Your task to perform on an android device: Show me productivity apps on the Play Store Image 0: 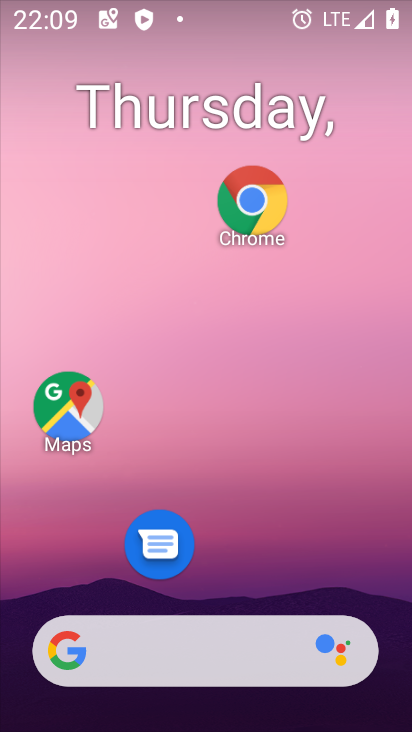
Step 0: drag from (230, 590) to (358, 33)
Your task to perform on an android device: Show me productivity apps on the Play Store Image 1: 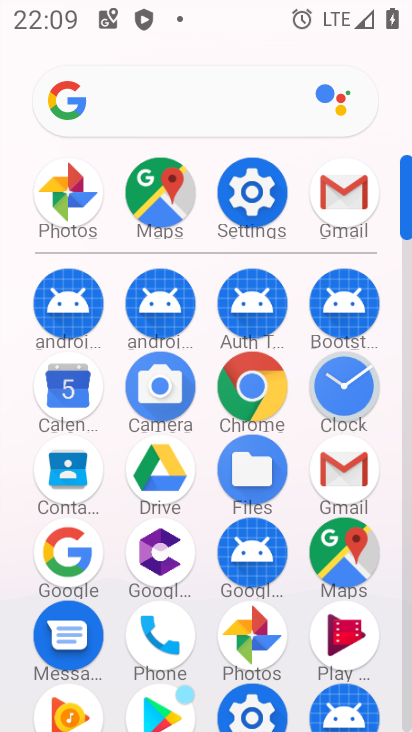
Step 1: click (156, 693)
Your task to perform on an android device: Show me productivity apps on the Play Store Image 2: 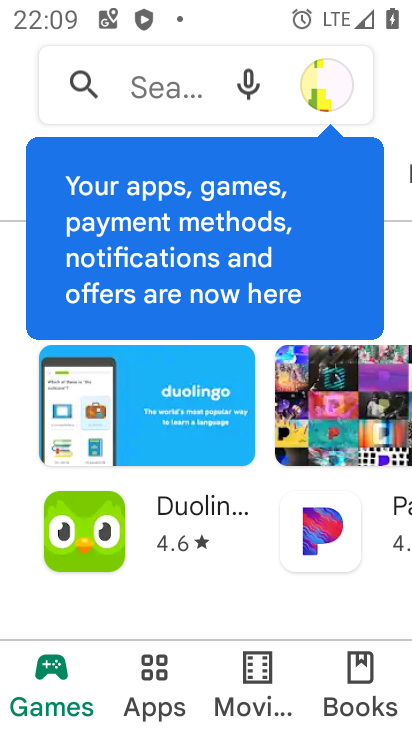
Step 2: click (181, 669)
Your task to perform on an android device: Show me productivity apps on the Play Store Image 3: 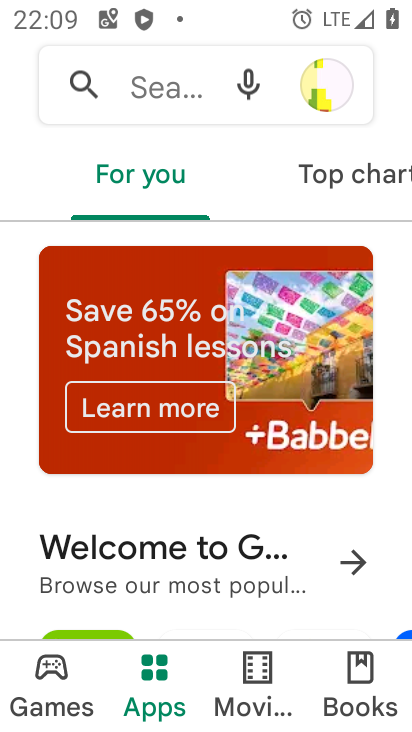
Step 3: click (372, 191)
Your task to perform on an android device: Show me productivity apps on the Play Store Image 4: 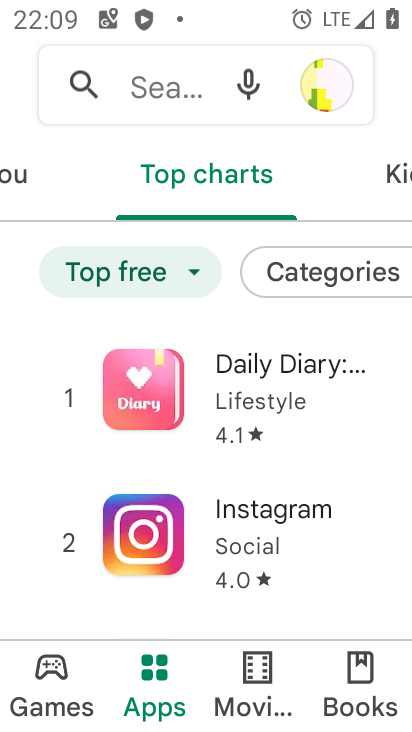
Step 4: click (324, 268)
Your task to perform on an android device: Show me productivity apps on the Play Store Image 5: 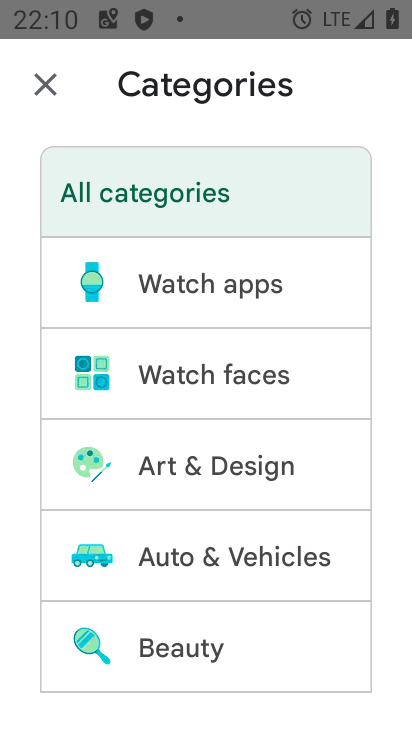
Step 5: drag from (180, 664) to (290, 290)
Your task to perform on an android device: Show me productivity apps on the Play Store Image 6: 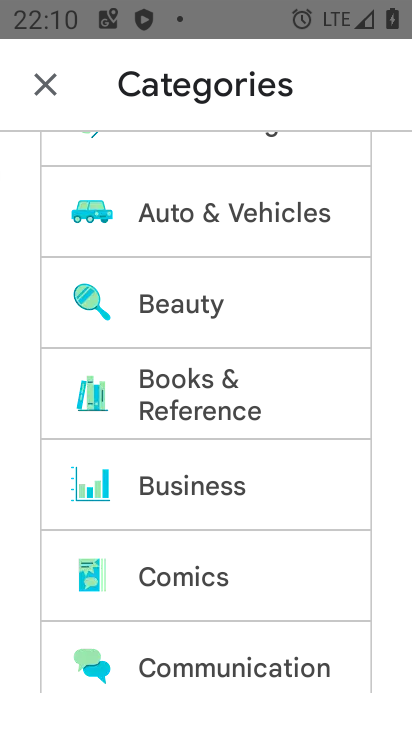
Step 6: drag from (158, 615) to (247, 243)
Your task to perform on an android device: Show me productivity apps on the Play Store Image 7: 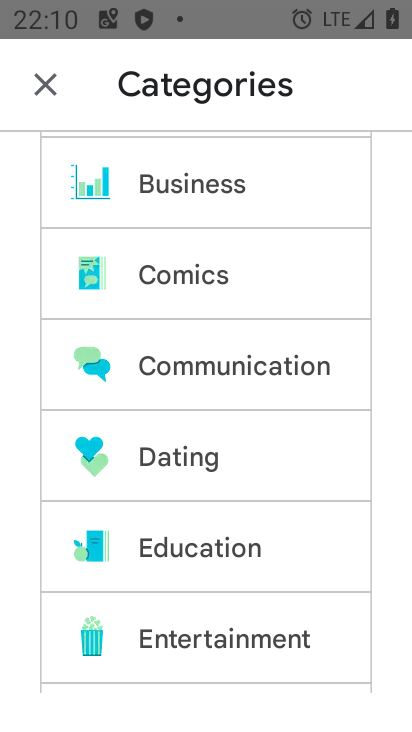
Step 7: drag from (87, 650) to (200, 147)
Your task to perform on an android device: Show me productivity apps on the Play Store Image 8: 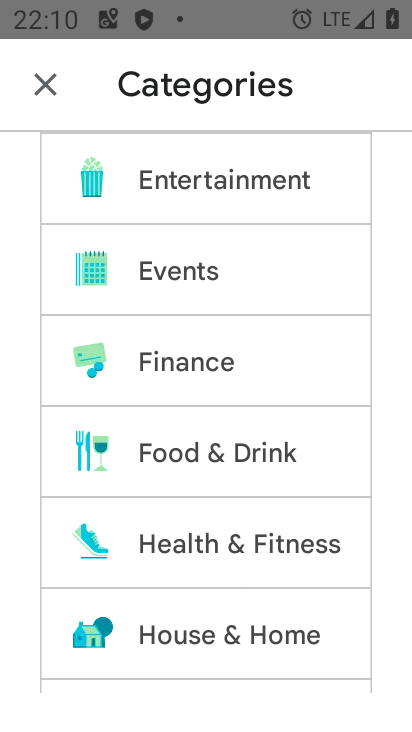
Step 8: drag from (109, 652) to (248, 73)
Your task to perform on an android device: Show me productivity apps on the Play Store Image 9: 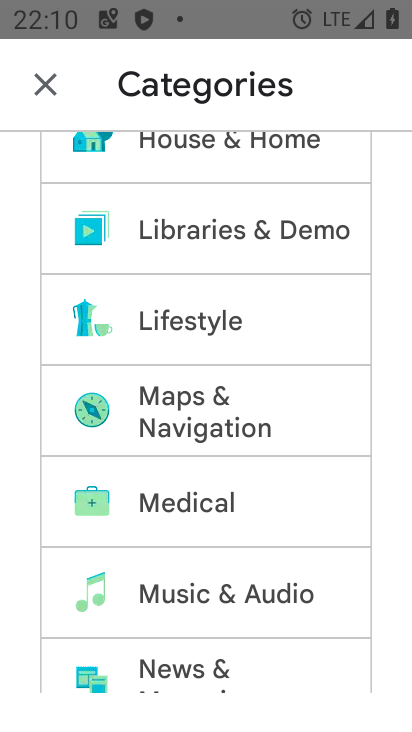
Step 9: drag from (139, 687) to (257, 197)
Your task to perform on an android device: Show me productivity apps on the Play Store Image 10: 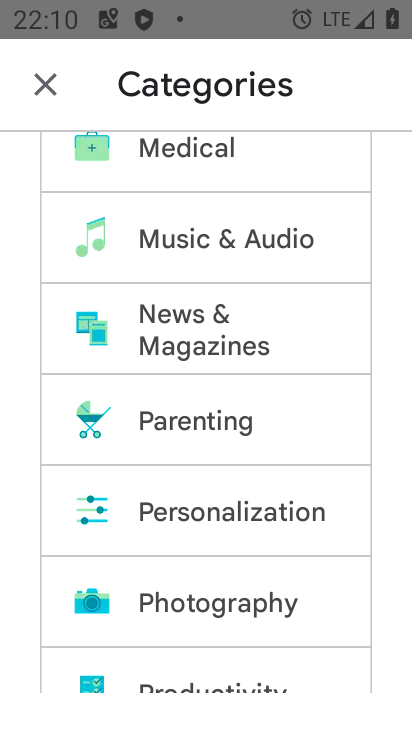
Step 10: click (129, 663)
Your task to perform on an android device: Show me productivity apps on the Play Store Image 11: 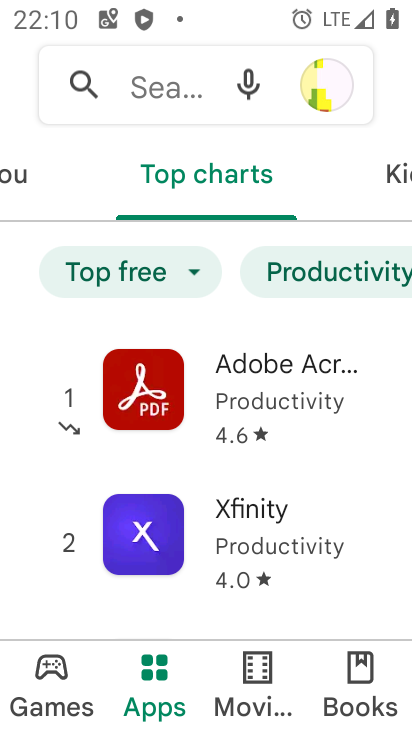
Step 11: task complete